Your task to perform on an android device: turn off smart reply in the gmail app Image 0: 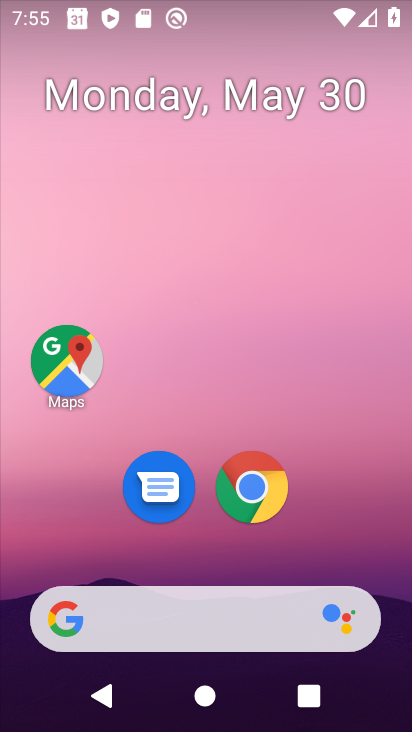
Step 0: drag from (381, 689) to (252, 109)
Your task to perform on an android device: turn off smart reply in the gmail app Image 1: 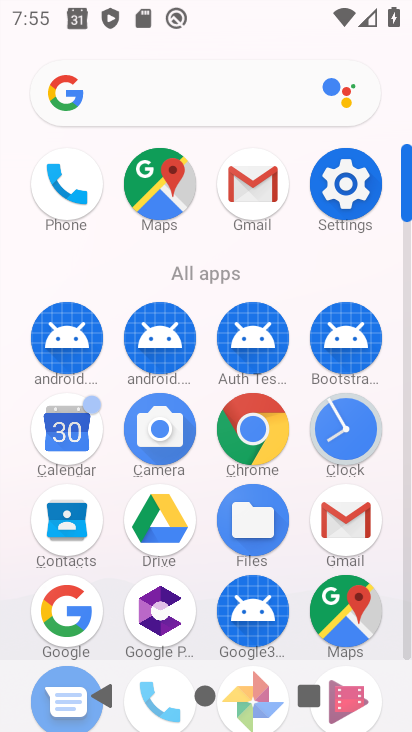
Step 1: click (344, 528)
Your task to perform on an android device: turn off smart reply in the gmail app Image 2: 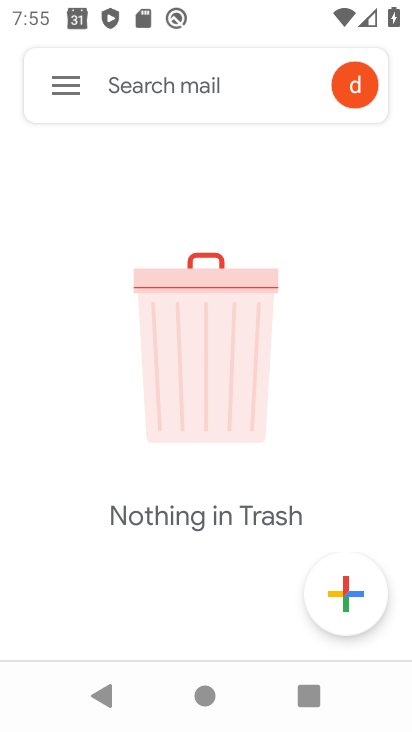
Step 2: click (64, 83)
Your task to perform on an android device: turn off smart reply in the gmail app Image 3: 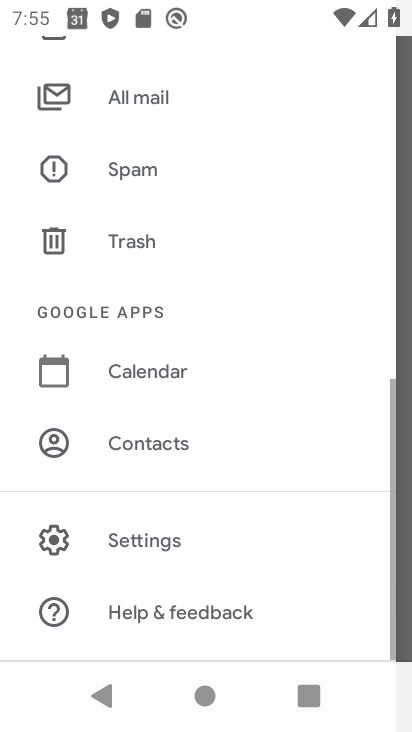
Step 3: click (134, 544)
Your task to perform on an android device: turn off smart reply in the gmail app Image 4: 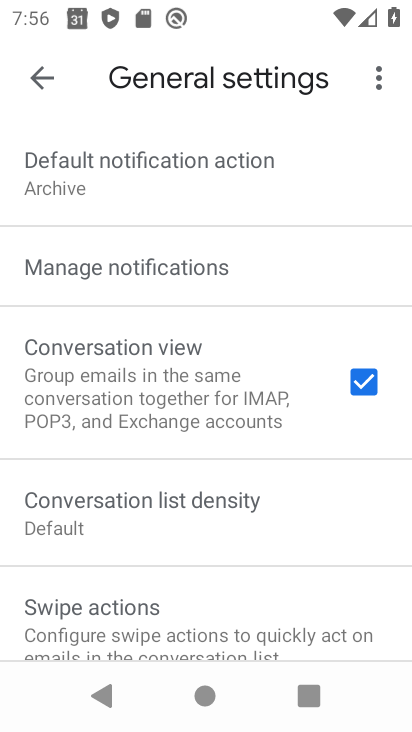
Step 4: click (16, 72)
Your task to perform on an android device: turn off smart reply in the gmail app Image 5: 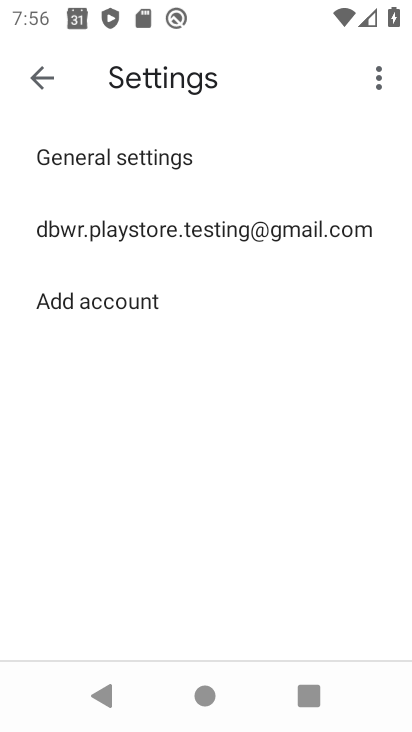
Step 5: click (90, 236)
Your task to perform on an android device: turn off smart reply in the gmail app Image 6: 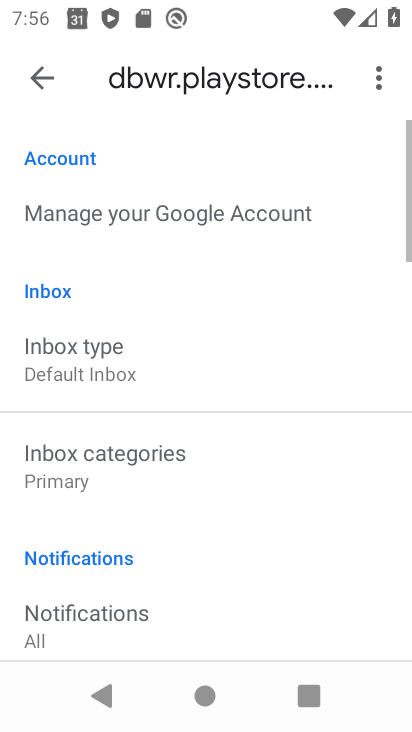
Step 6: drag from (267, 616) to (298, 296)
Your task to perform on an android device: turn off smart reply in the gmail app Image 7: 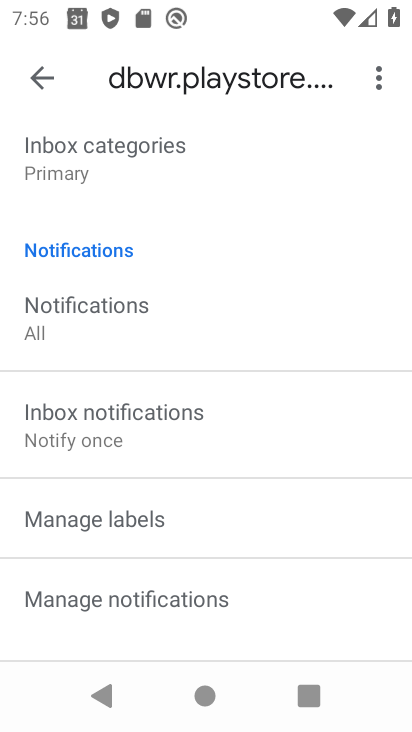
Step 7: drag from (270, 621) to (279, 335)
Your task to perform on an android device: turn off smart reply in the gmail app Image 8: 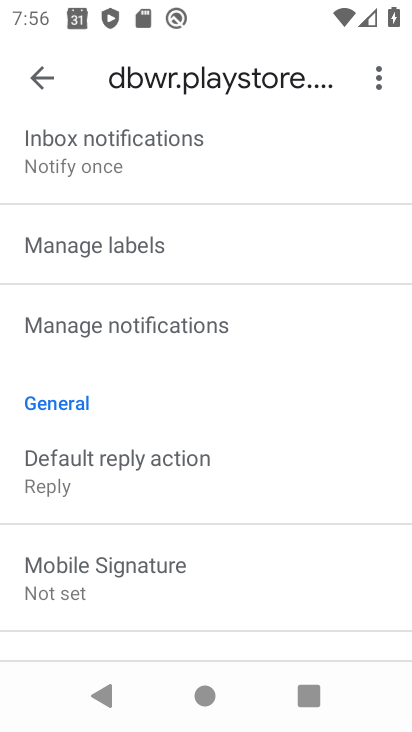
Step 8: drag from (262, 613) to (287, 361)
Your task to perform on an android device: turn off smart reply in the gmail app Image 9: 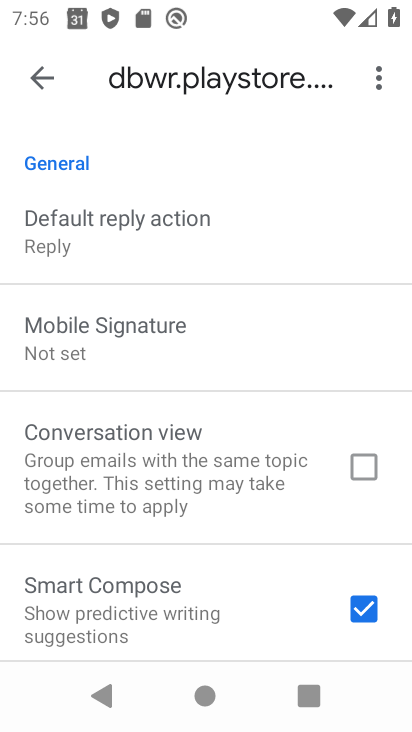
Step 9: drag from (199, 638) to (234, 396)
Your task to perform on an android device: turn off smart reply in the gmail app Image 10: 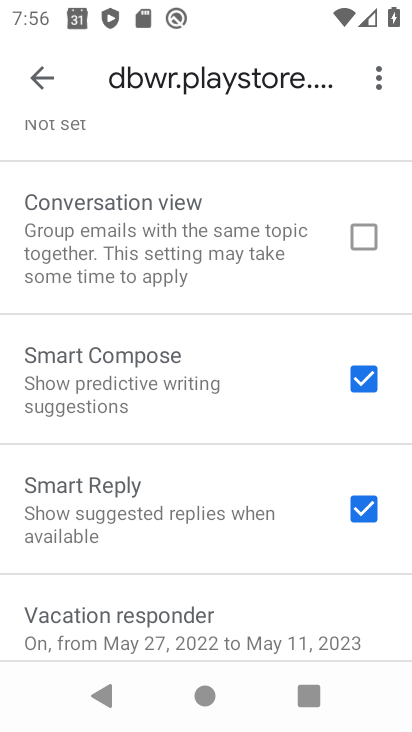
Step 10: click (362, 506)
Your task to perform on an android device: turn off smart reply in the gmail app Image 11: 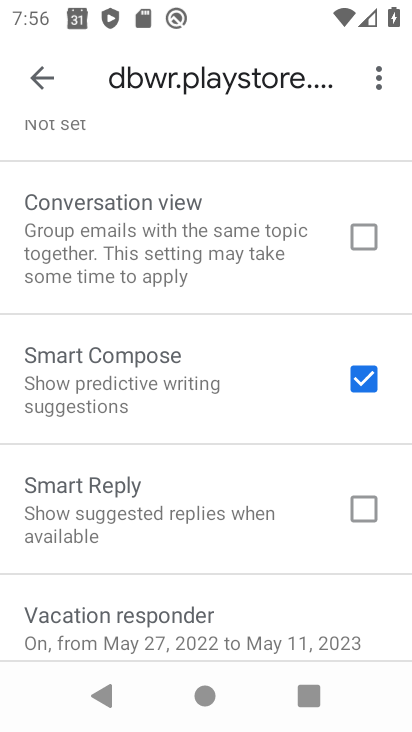
Step 11: task complete